Your task to perform on an android device: Search for vegetarian restaurants on Maps Image 0: 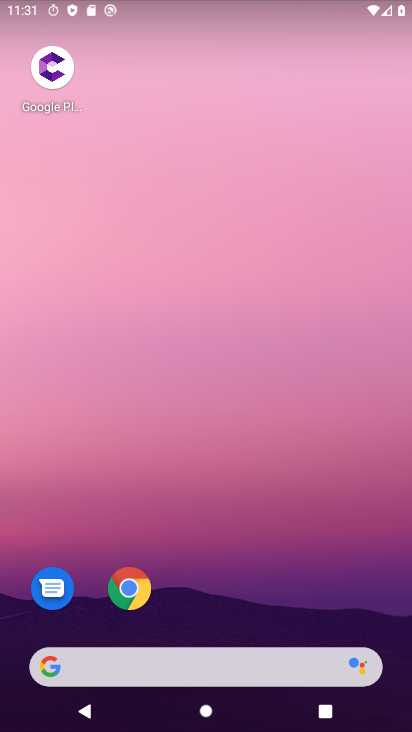
Step 0: drag from (190, 639) to (281, 253)
Your task to perform on an android device: Search for vegetarian restaurants on Maps Image 1: 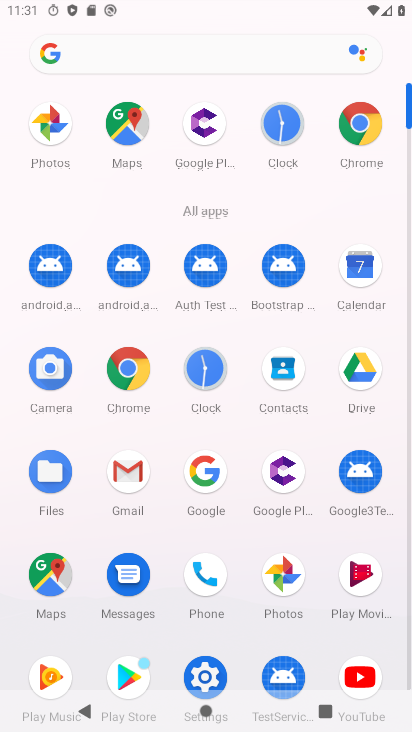
Step 1: drag from (171, 534) to (220, 84)
Your task to perform on an android device: Search for vegetarian restaurants on Maps Image 2: 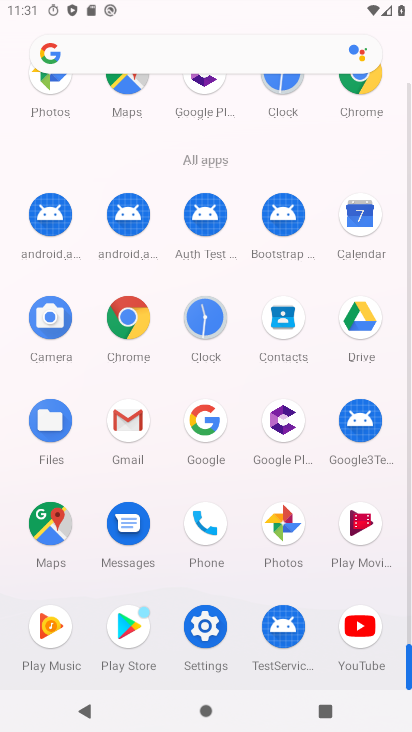
Step 2: drag from (178, 575) to (259, 227)
Your task to perform on an android device: Search for vegetarian restaurants on Maps Image 3: 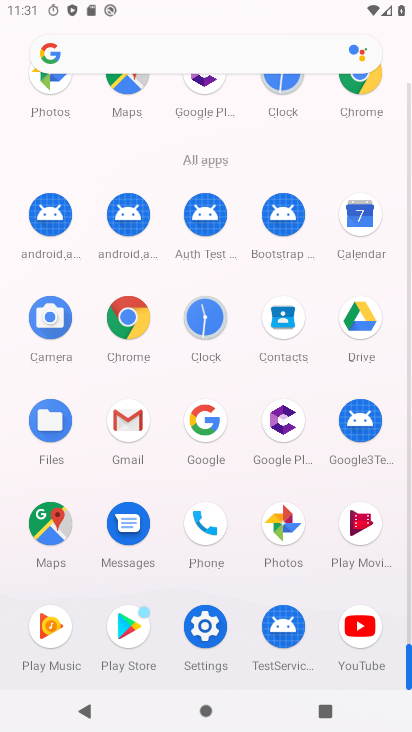
Step 3: click (56, 515)
Your task to perform on an android device: Search for vegetarian restaurants on Maps Image 4: 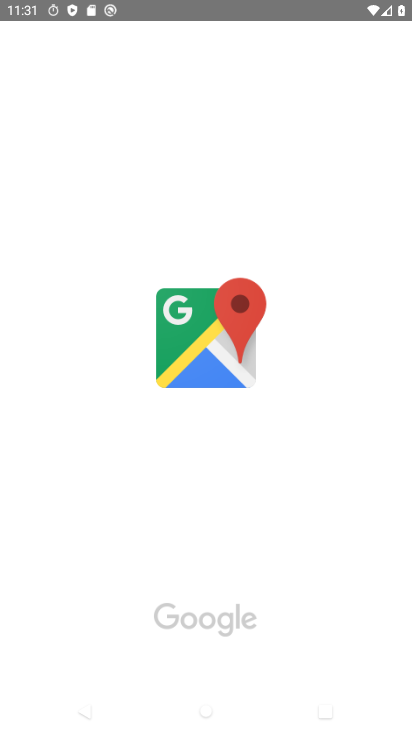
Step 4: drag from (164, 651) to (217, 184)
Your task to perform on an android device: Search for vegetarian restaurants on Maps Image 5: 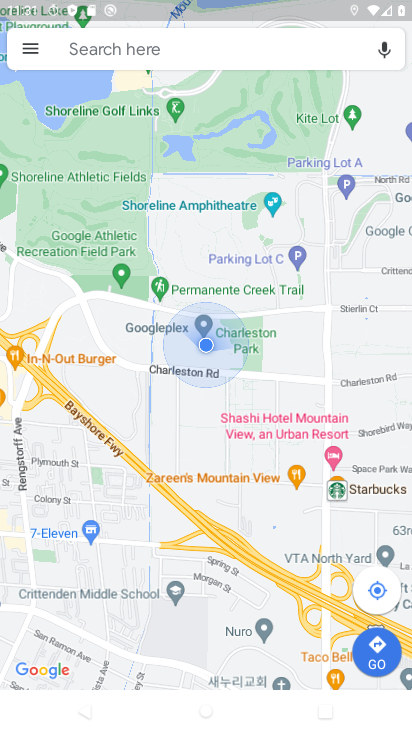
Step 5: click (109, 46)
Your task to perform on an android device: Search for vegetarian restaurants on Maps Image 6: 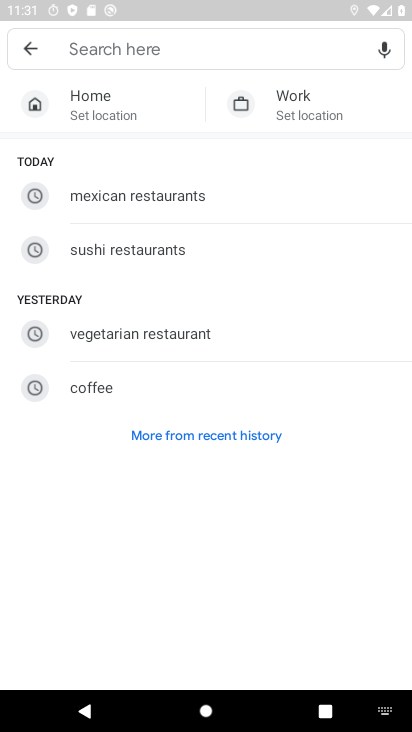
Step 6: type "vegetarian restaurants"
Your task to perform on an android device: Search for vegetarian restaurants on Maps Image 7: 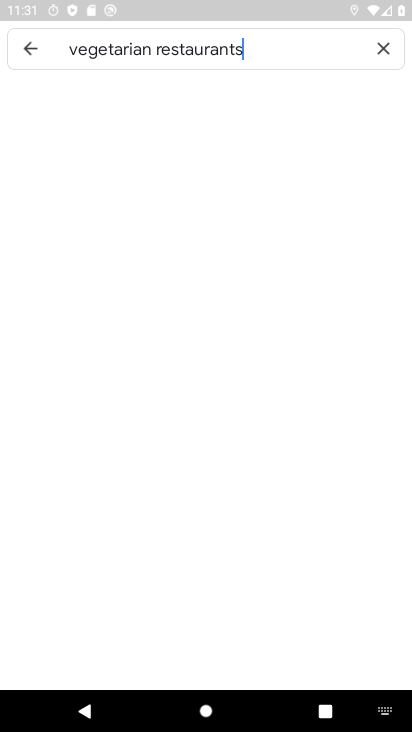
Step 7: type ""
Your task to perform on an android device: Search for vegetarian restaurants on Maps Image 8: 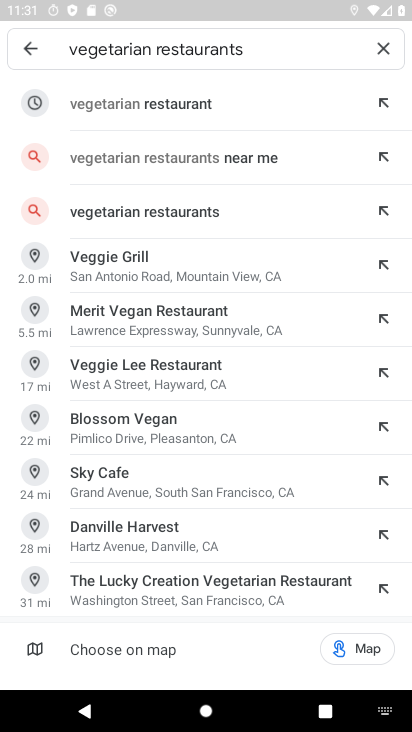
Step 8: click (161, 106)
Your task to perform on an android device: Search for vegetarian restaurants on Maps Image 9: 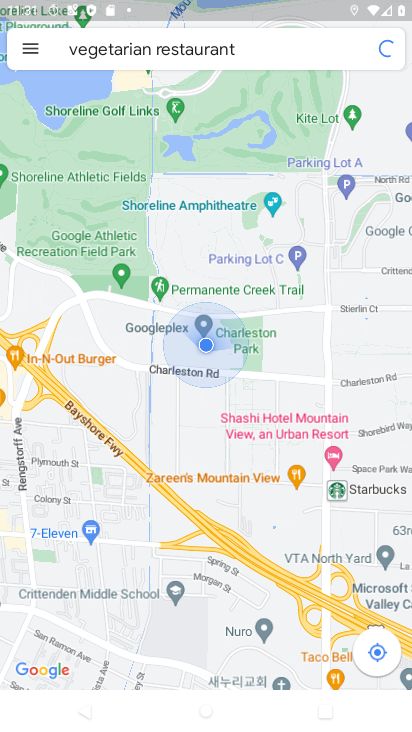
Step 9: task complete